Your task to perform on an android device: check google app version Image 0: 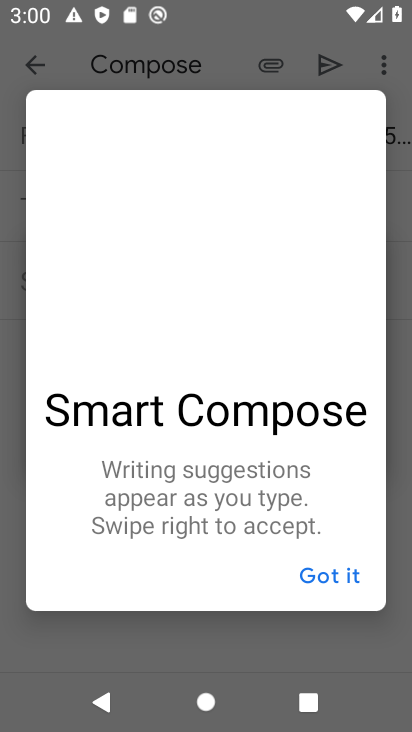
Step 0: press home button
Your task to perform on an android device: check google app version Image 1: 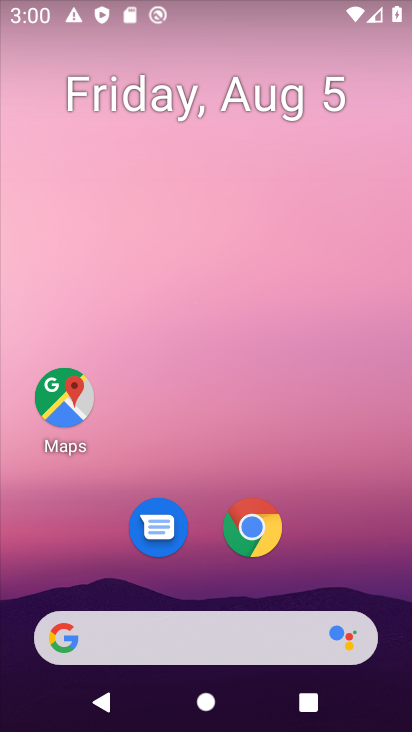
Step 1: drag from (238, 580) to (200, 204)
Your task to perform on an android device: check google app version Image 2: 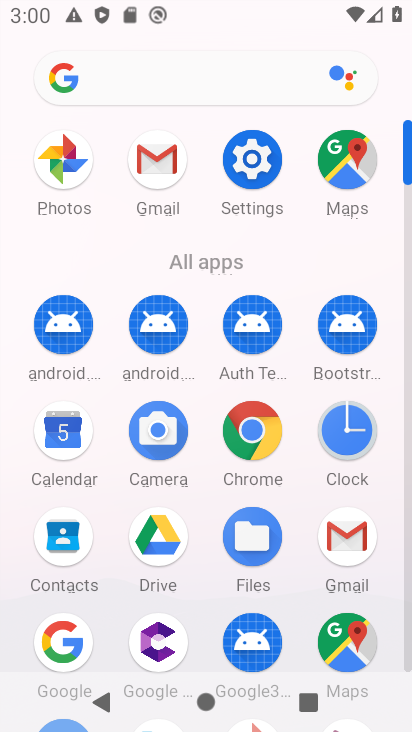
Step 2: click (253, 155)
Your task to perform on an android device: check google app version Image 3: 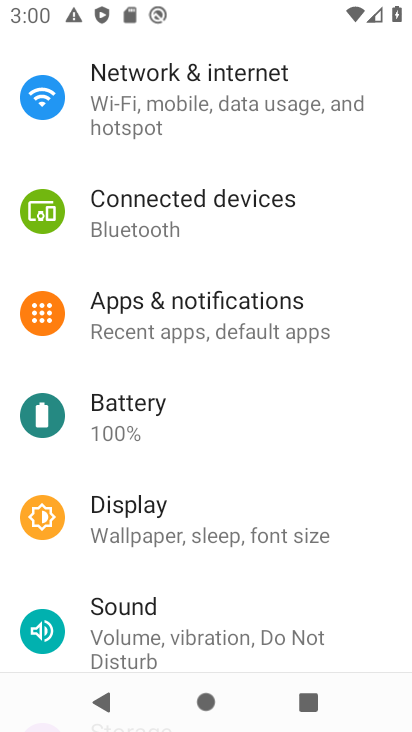
Step 3: press home button
Your task to perform on an android device: check google app version Image 4: 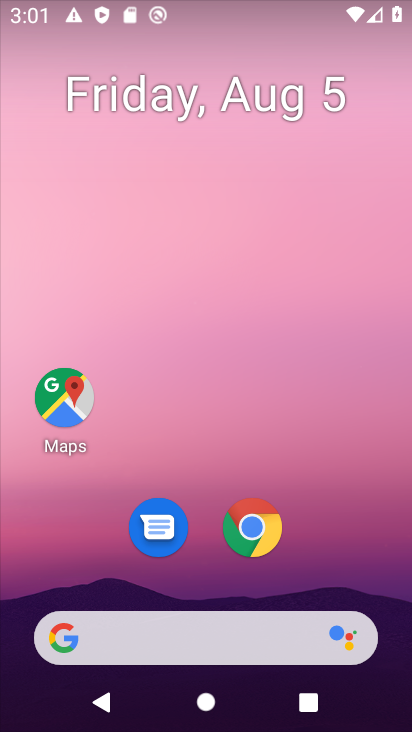
Step 4: drag from (217, 565) to (181, 74)
Your task to perform on an android device: check google app version Image 5: 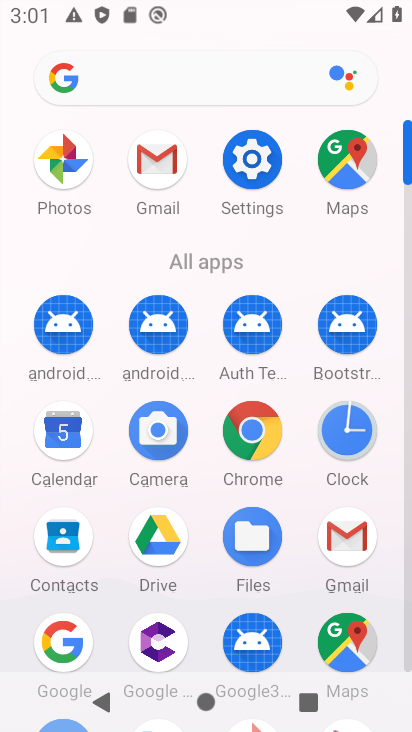
Step 5: click (251, 162)
Your task to perform on an android device: check google app version Image 6: 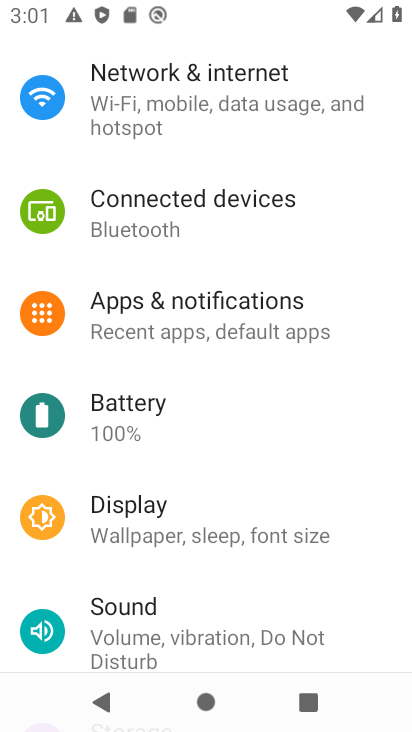
Step 6: drag from (234, 651) to (246, 388)
Your task to perform on an android device: check google app version Image 7: 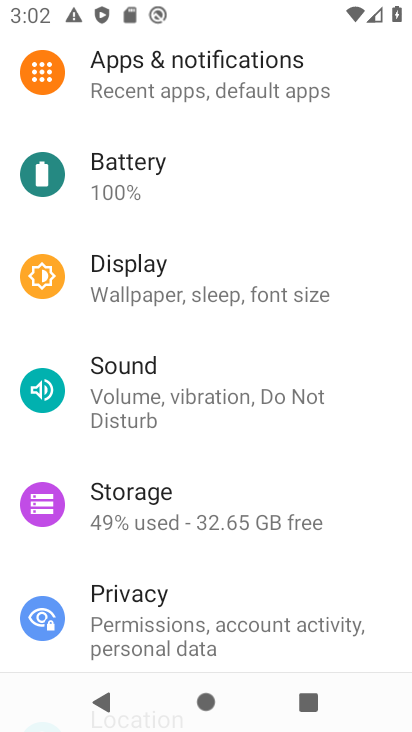
Step 7: drag from (166, 198) to (182, 538)
Your task to perform on an android device: check google app version Image 8: 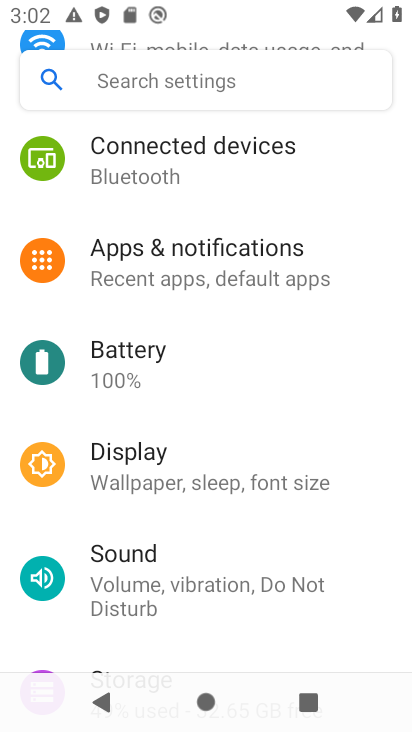
Step 8: press home button
Your task to perform on an android device: check google app version Image 9: 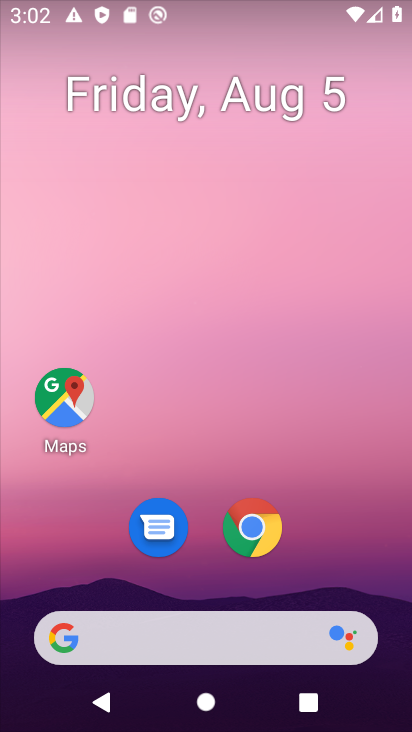
Step 9: drag from (210, 445) to (228, 67)
Your task to perform on an android device: check google app version Image 10: 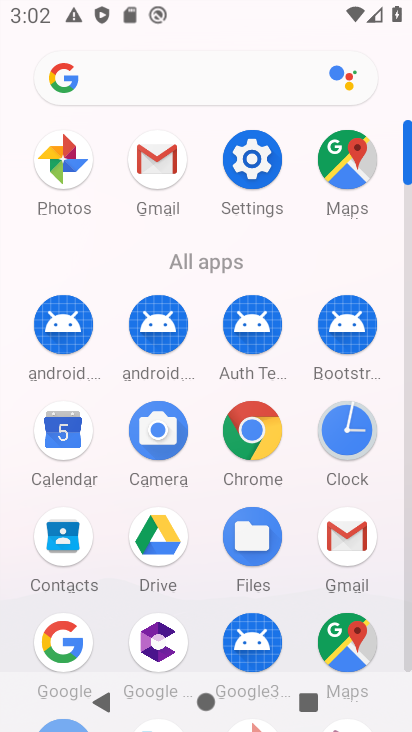
Step 10: click (67, 636)
Your task to perform on an android device: check google app version Image 11: 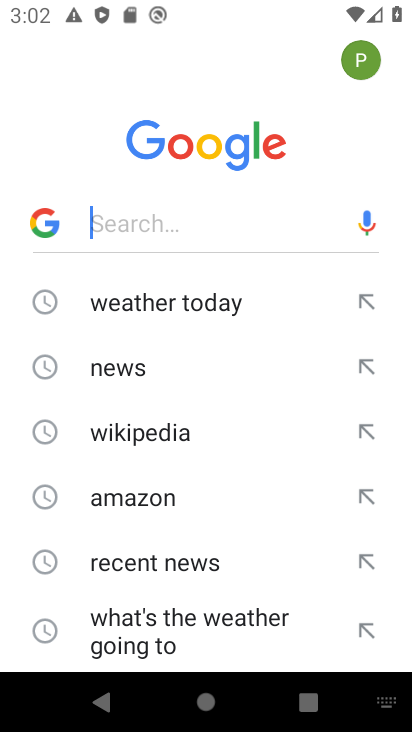
Step 11: click (357, 62)
Your task to perform on an android device: check google app version Image 12: 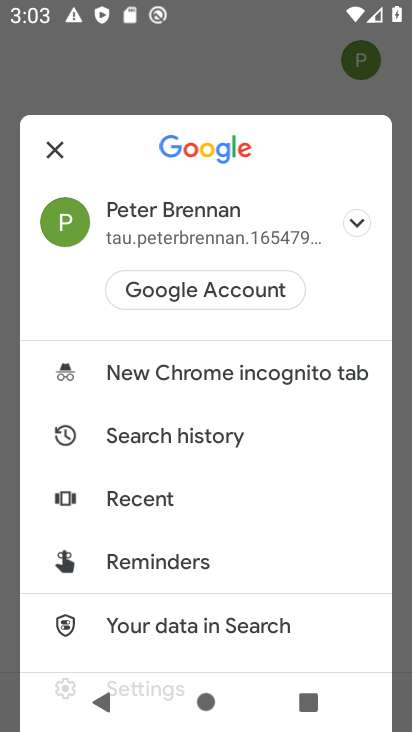
Step 12: drag from (153, 618) to (186, 372)
Your task to perform on an android device: check google app version Image 13: 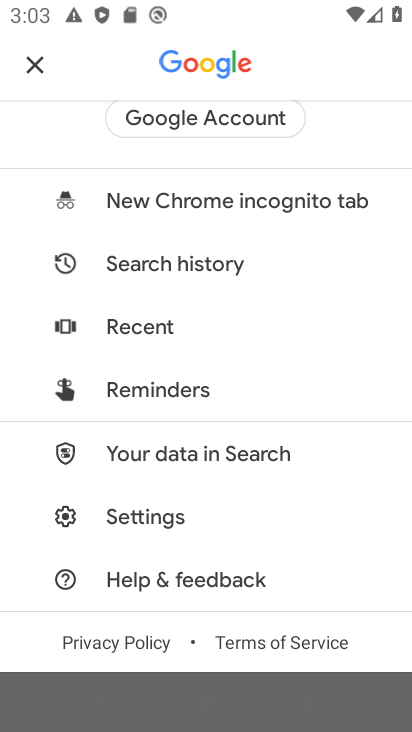
Step 13: click (146, 521)
Your task to perform on an android device: check google app version Image 14: 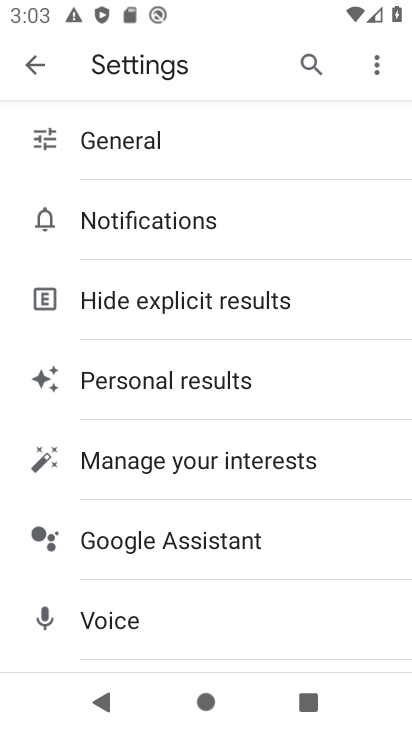
Step 14: drag from (145, 502) to (162, 297)
Your task to perform on an android device: check google app version Image 15: 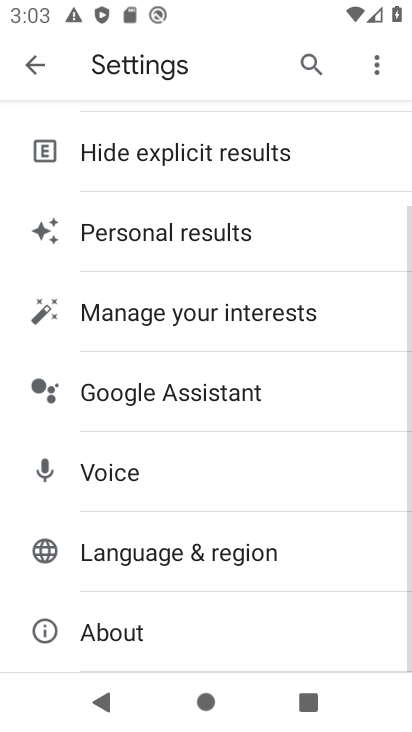
Step 15: click (115, 637)
Your task to perform on an android device: check google app version Image 16: 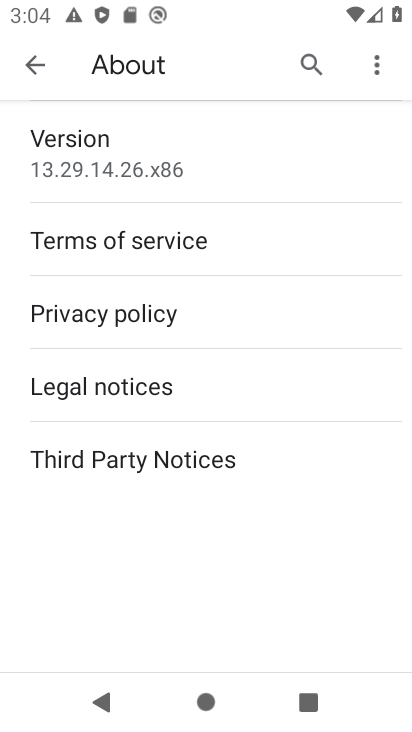
Step 16: task complete